Your task to perform on an android device: Go to wifi settings Image 0: 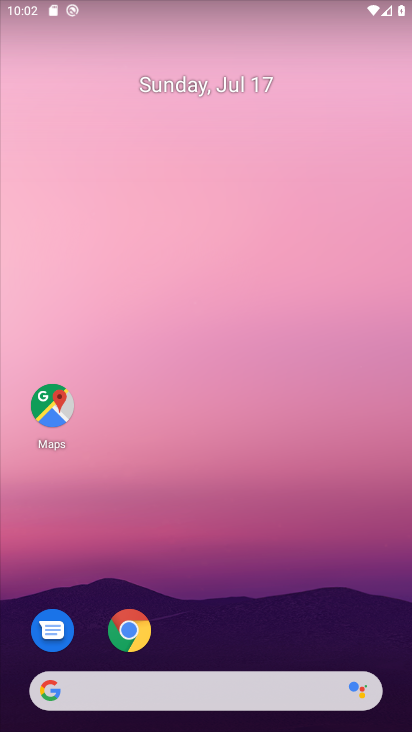
Step 0: drag from (202, 628) to (303, 19)
Your task to perform on an android device: Go to wifi settings Image 1: 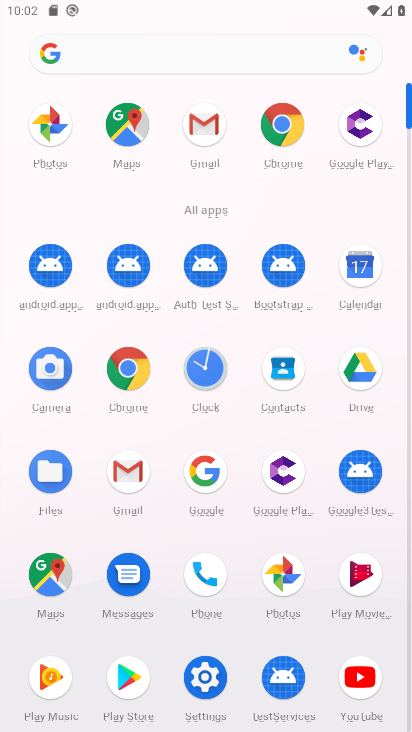
Step 1: click (205, 661)
Your task to perform on an android device: Go to wifi settings Image 2: 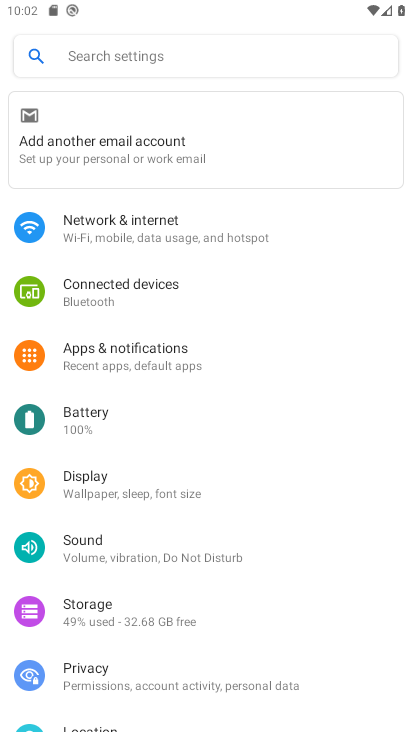
Step 2: click (217, 231)
Your task to perform on an android device: Go to wifi settings Image 3: 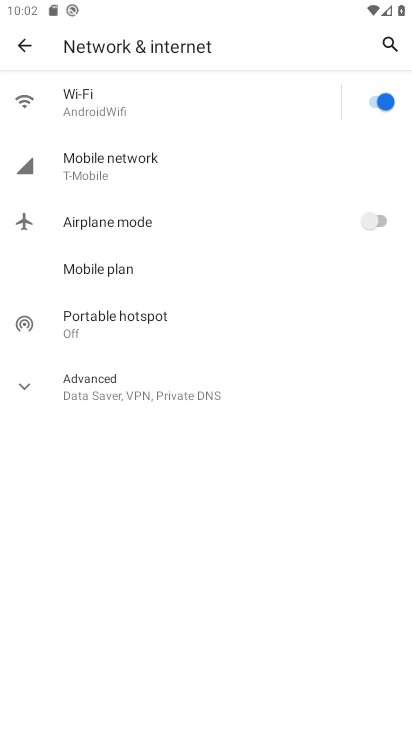
Step 3: click (102, 93)
Your task to perform on an android device: Go to wifi settings Image 4: 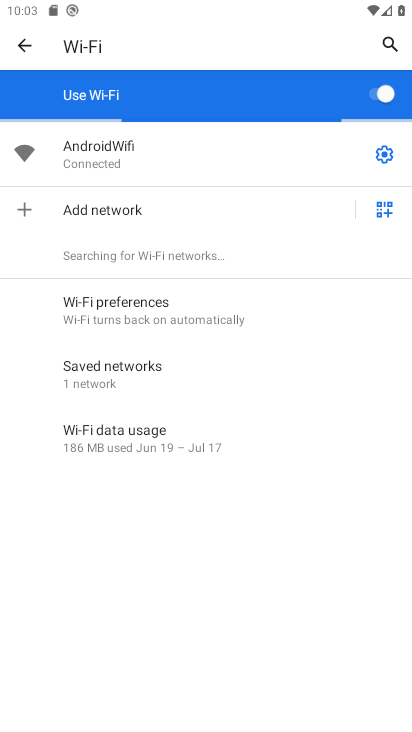
Step 4: task complete